Your task to perform on an android device: Open the calendar and show me this week's events Image 0: 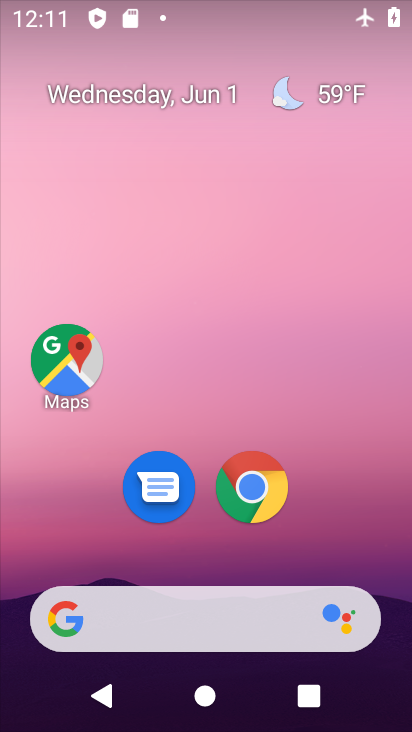
Step 0: drag from (158, 563) to (222, 59)
Your task to perform on an android device: Open the calendar and show me this week's events Image 1: 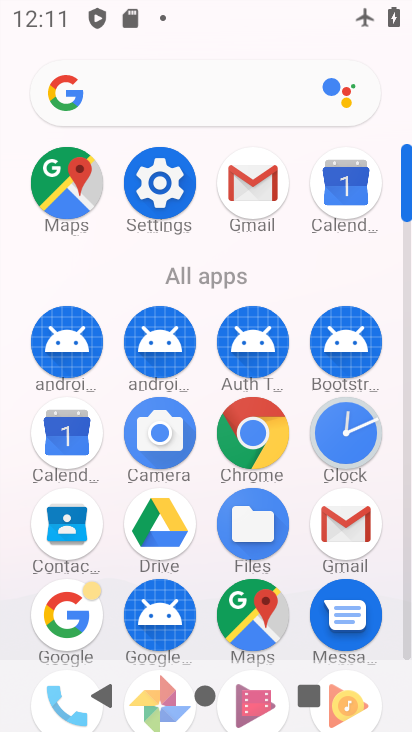
Step 1: click (70, 424)
Your task to perform on an android device: Open the calendar and show me this week's events Image 2: 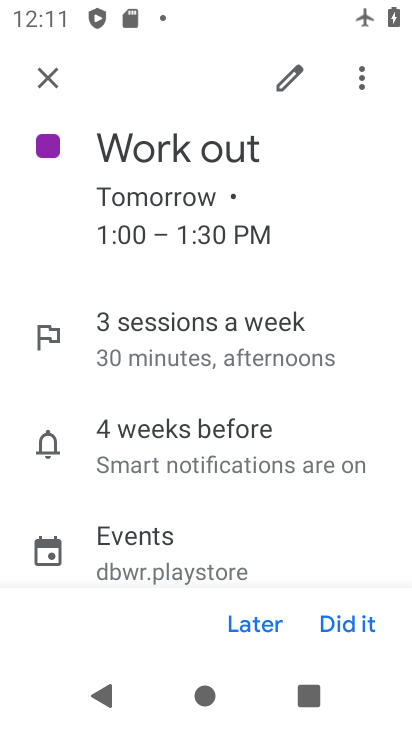
Step 2: task complete